Your task to perform on an android device: toggle wifi Image 0: 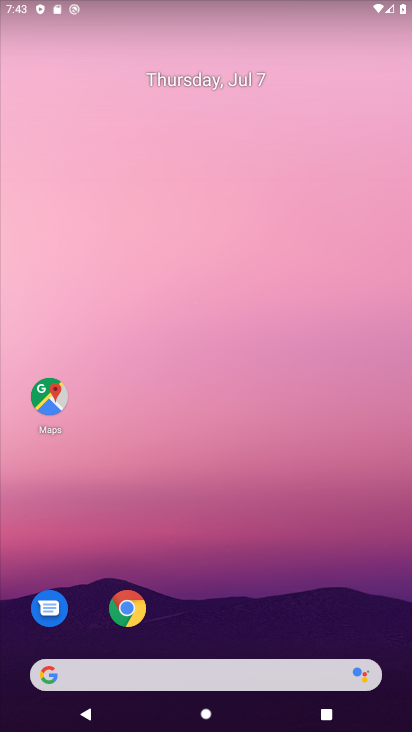
Step 0: drag from (348, 594) to (256, 122)
Your task to perform on an android device: toggle wifi Image 1: 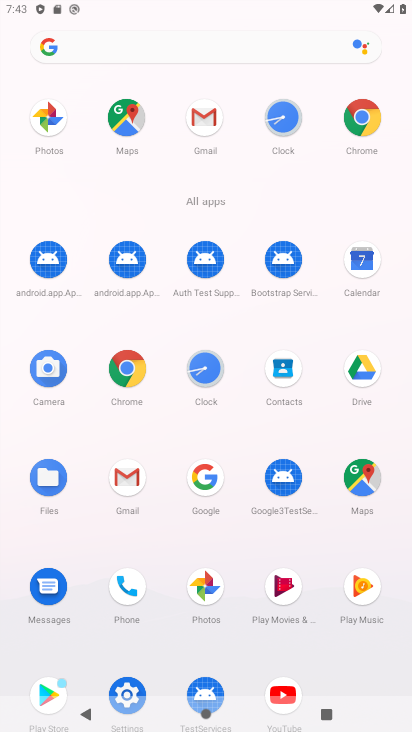
Step 1: drag from (389, 664) to (373, 422)
Your task to perform on an android device: toggle wifi Image 2: 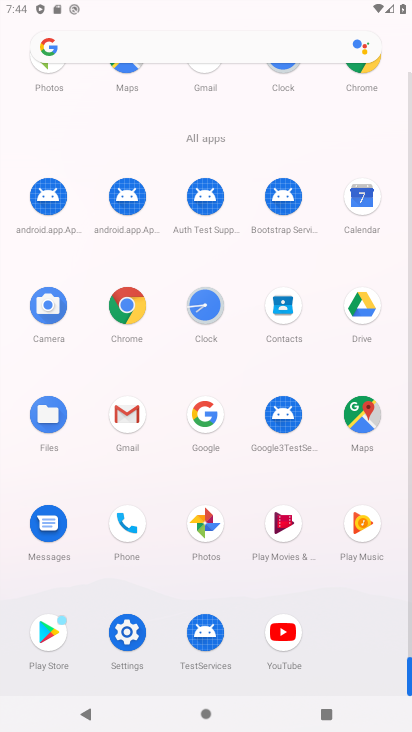
Step 2: click (125, 631)
Your task to perform on an android device: toggle wifi Image 3: 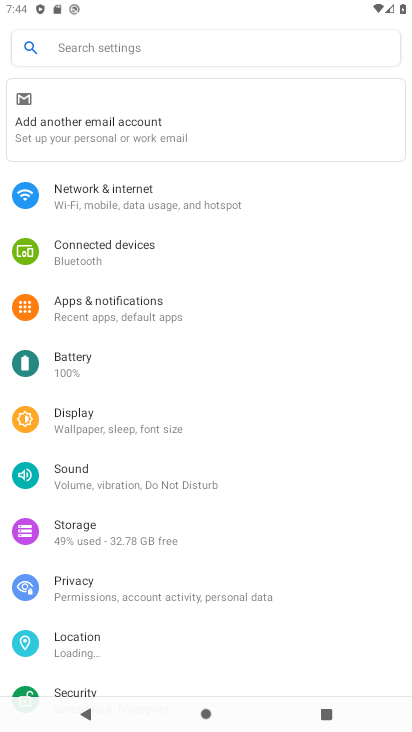
Step 3: click (83, 193)
Your task to perform on an android device: toggle wifi Image 4: 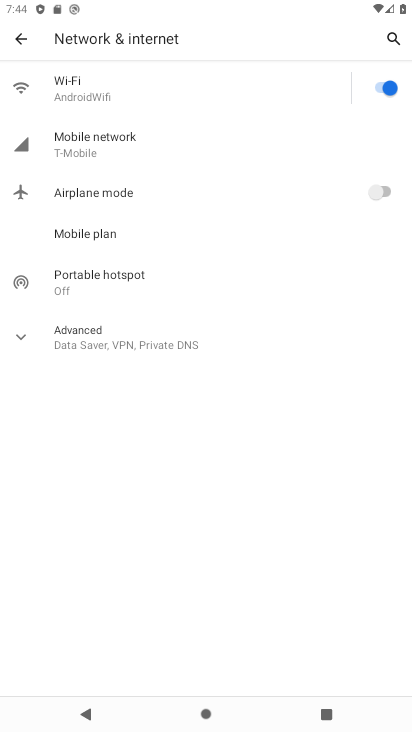
Step 4: click (373, 85)
Your task to perform on an android device: toggle wifi Image 5: 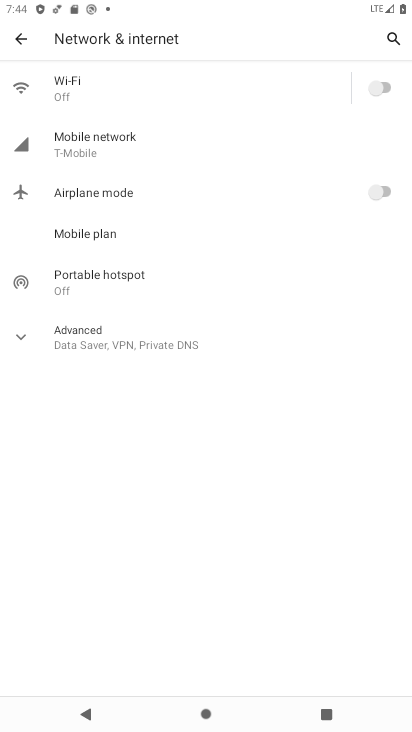
Step 5: task complete